Your task to perform on an android device: open app "Fetch Rewards" Image 0: 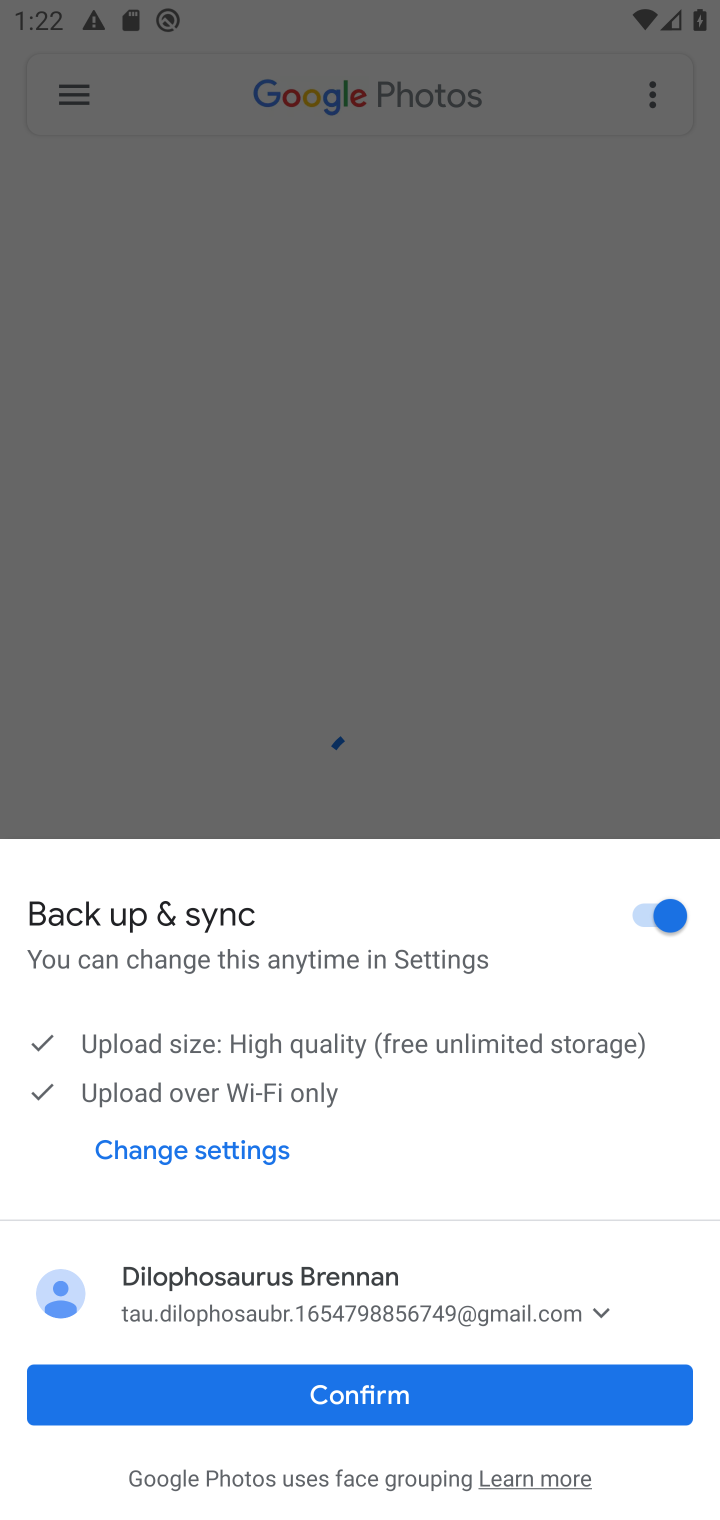
Step 0: press home button
Your task to perform on an android device: open app "Fetch Rewards" Image 1: 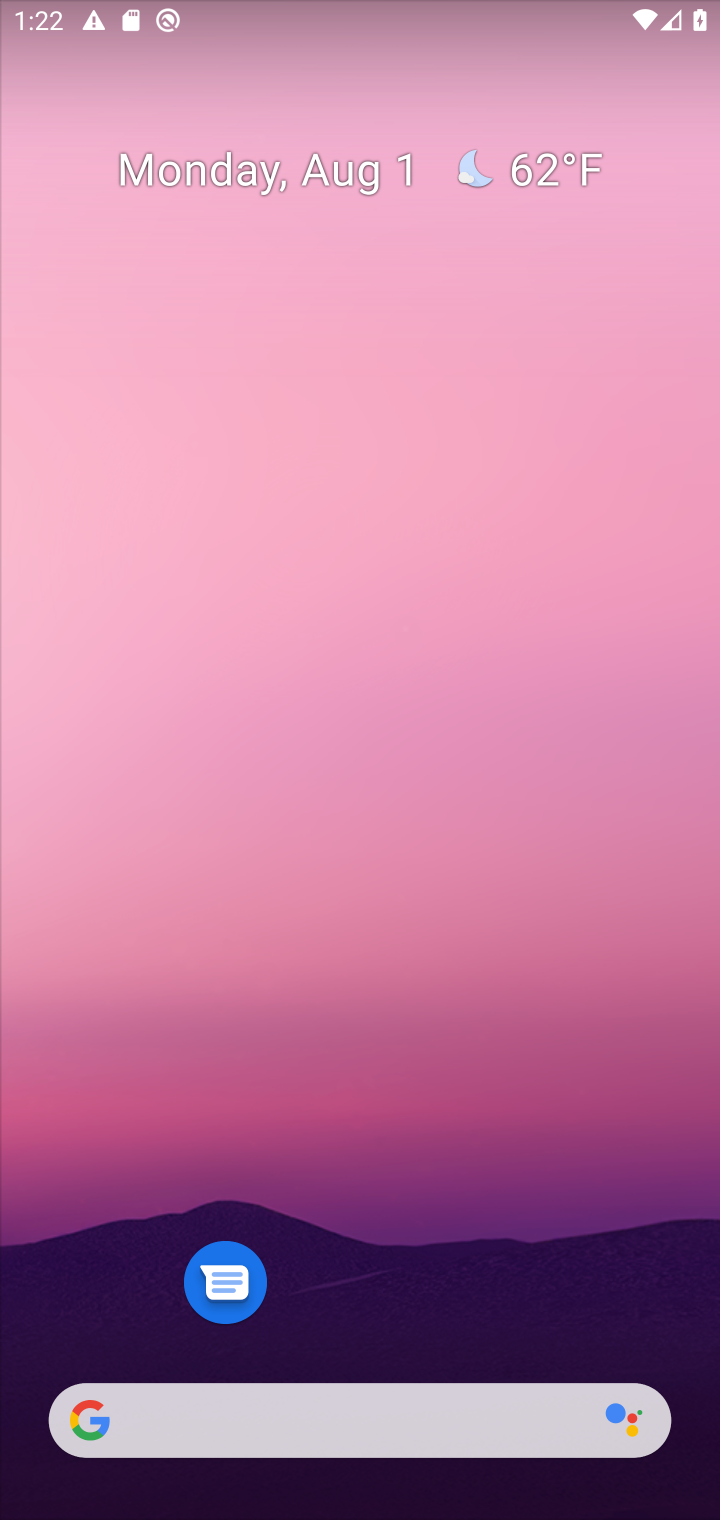
Step 1: drag from (409, 1271) to (340, 432)
Your task to perform on an android device: open app "Fetch Rewards" Image 2: 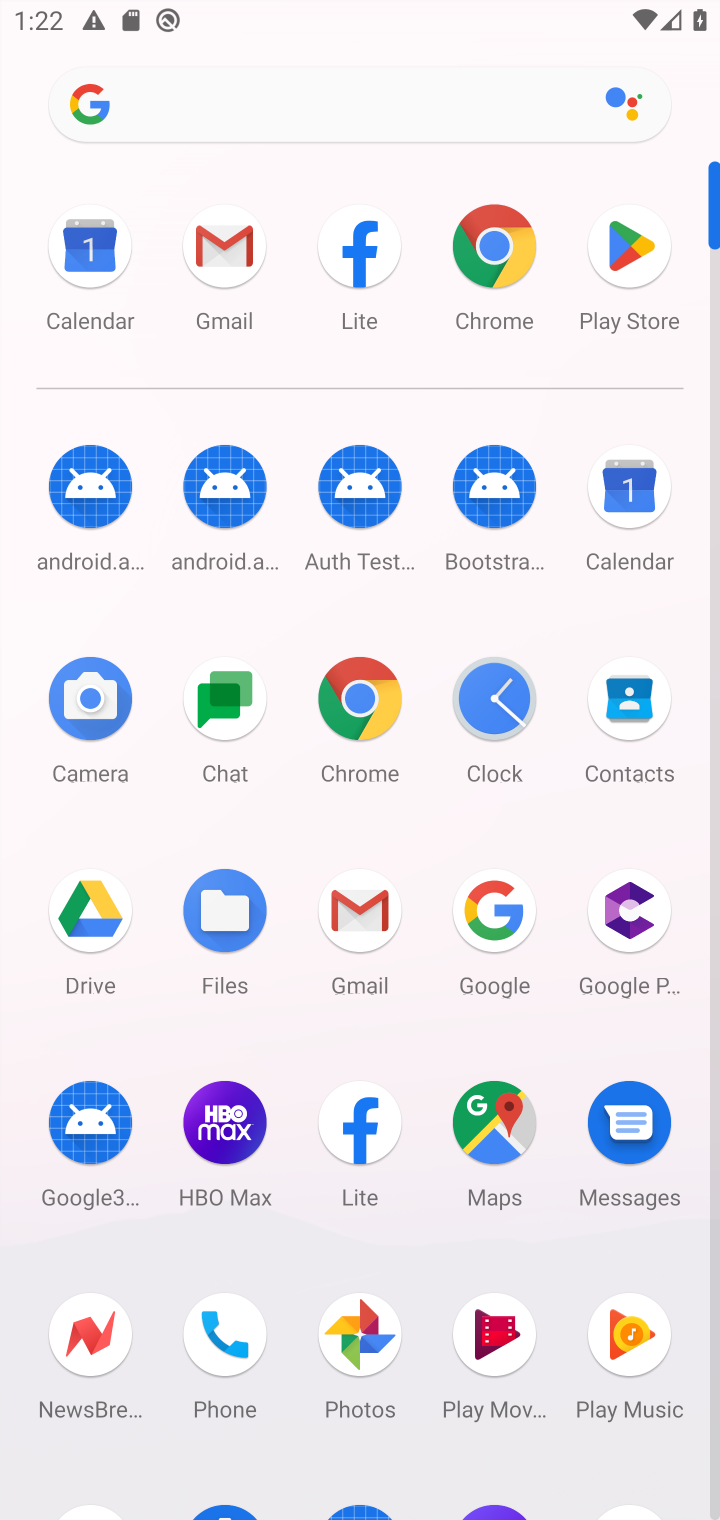
Step 2: click (642, 244)
Your task to perform on an android device: open app "Fetch Rewards" Image 3: 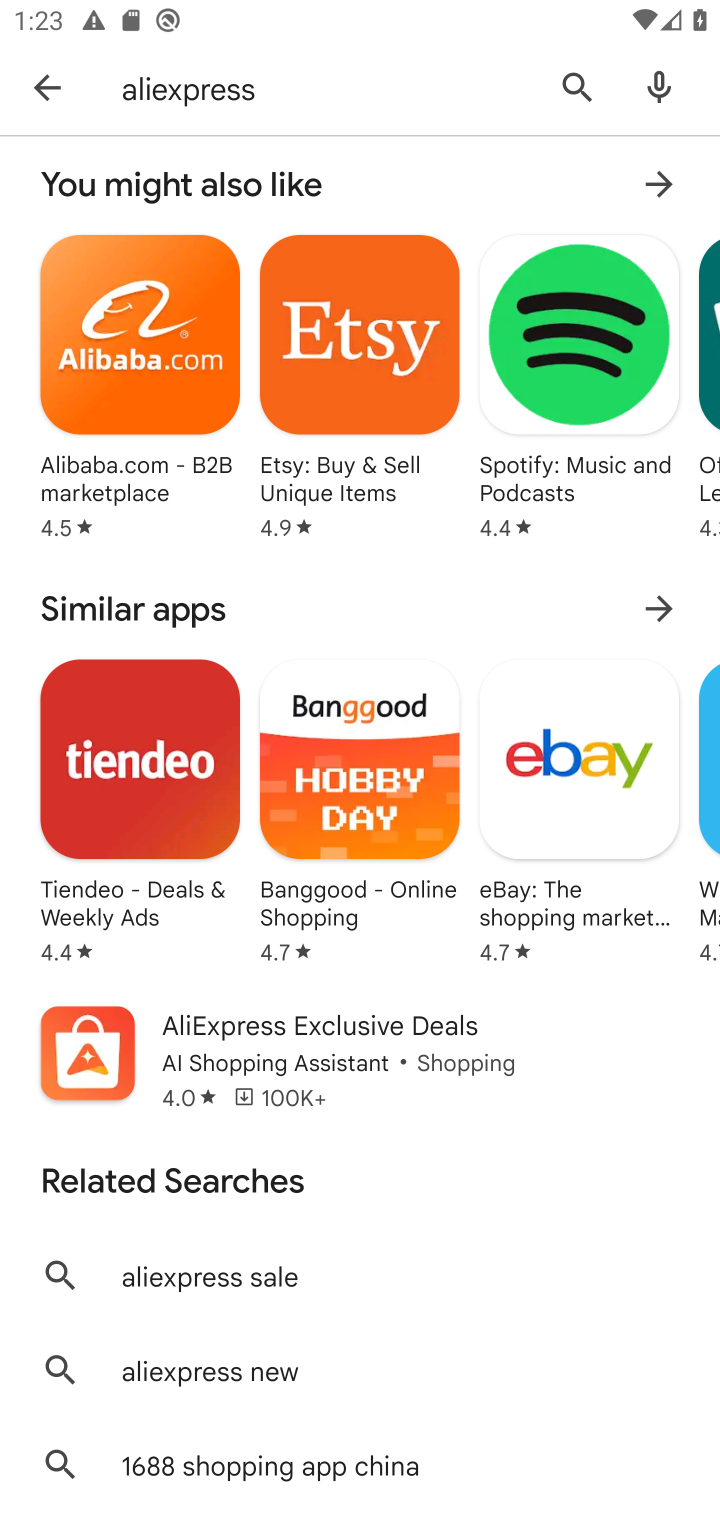
Step 3: click (53, 73)
Your task to perform on an android device: open app "Fetch Rewards" Image 4: 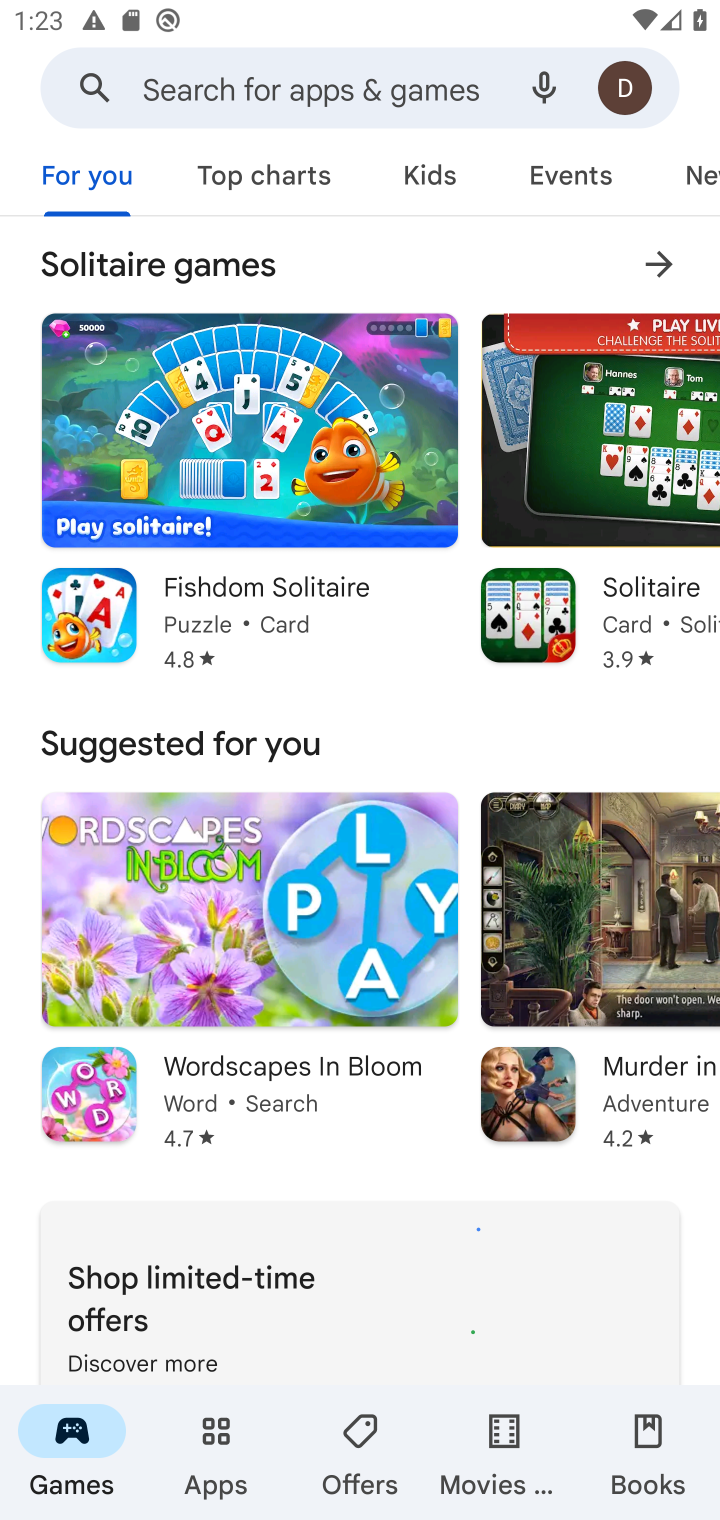
Step 4: click (202, 89)
Your task to perform on an android device: open app "Fetch Rewards" Image 5: 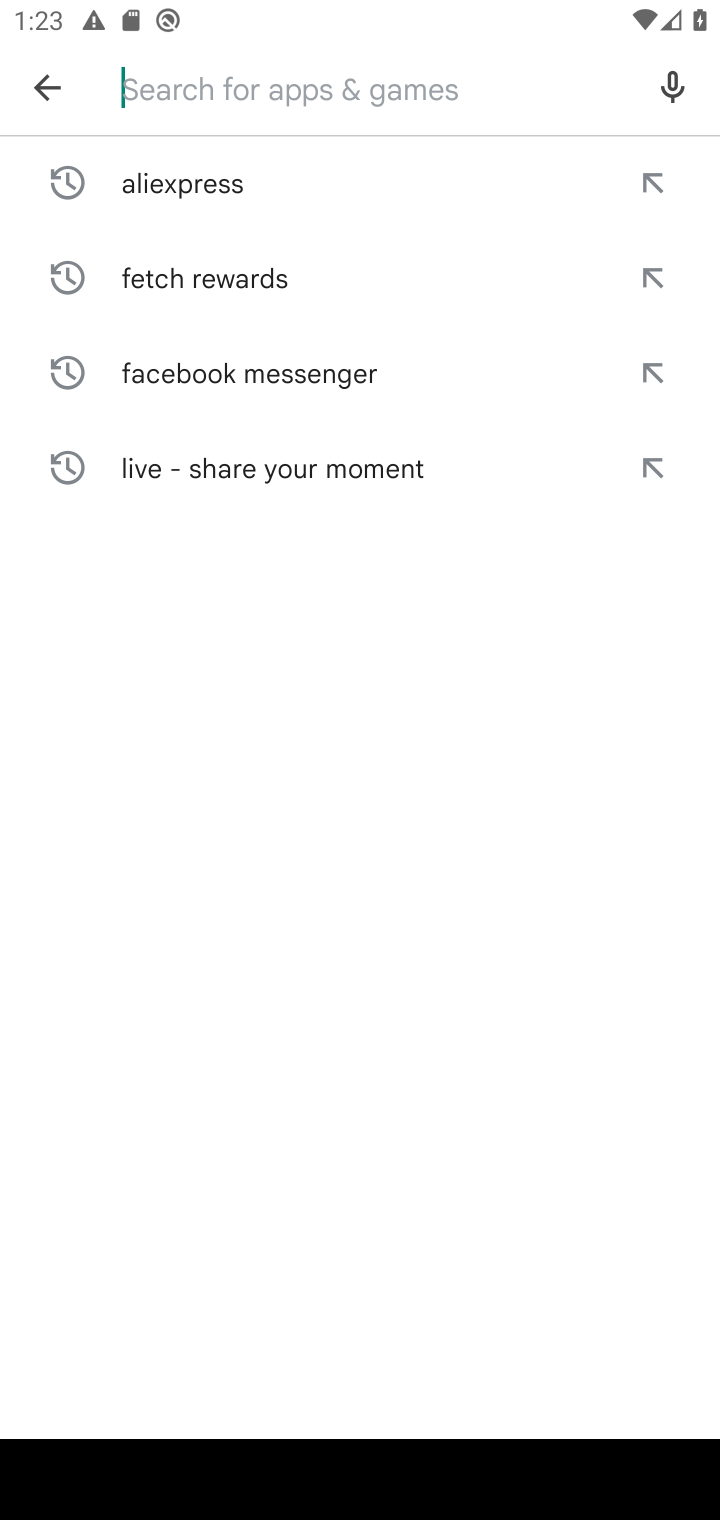
Step 5: type "Fetch Rewards"
Your task to perform on an android device: open app "Fetch Rewards" Image 6: 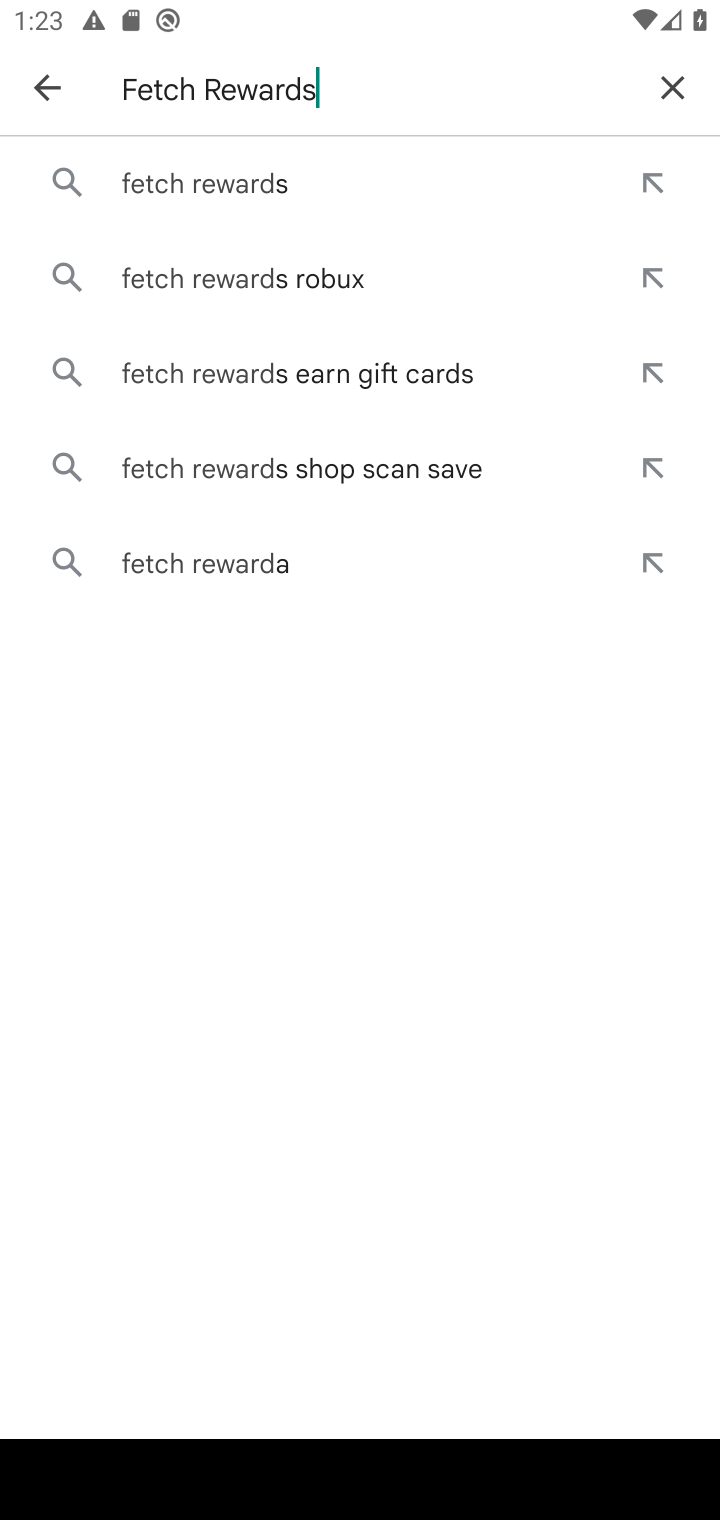
Step 6: type ""
Your task to perform on an android device: open app "Fetch Rewards" Image 7: 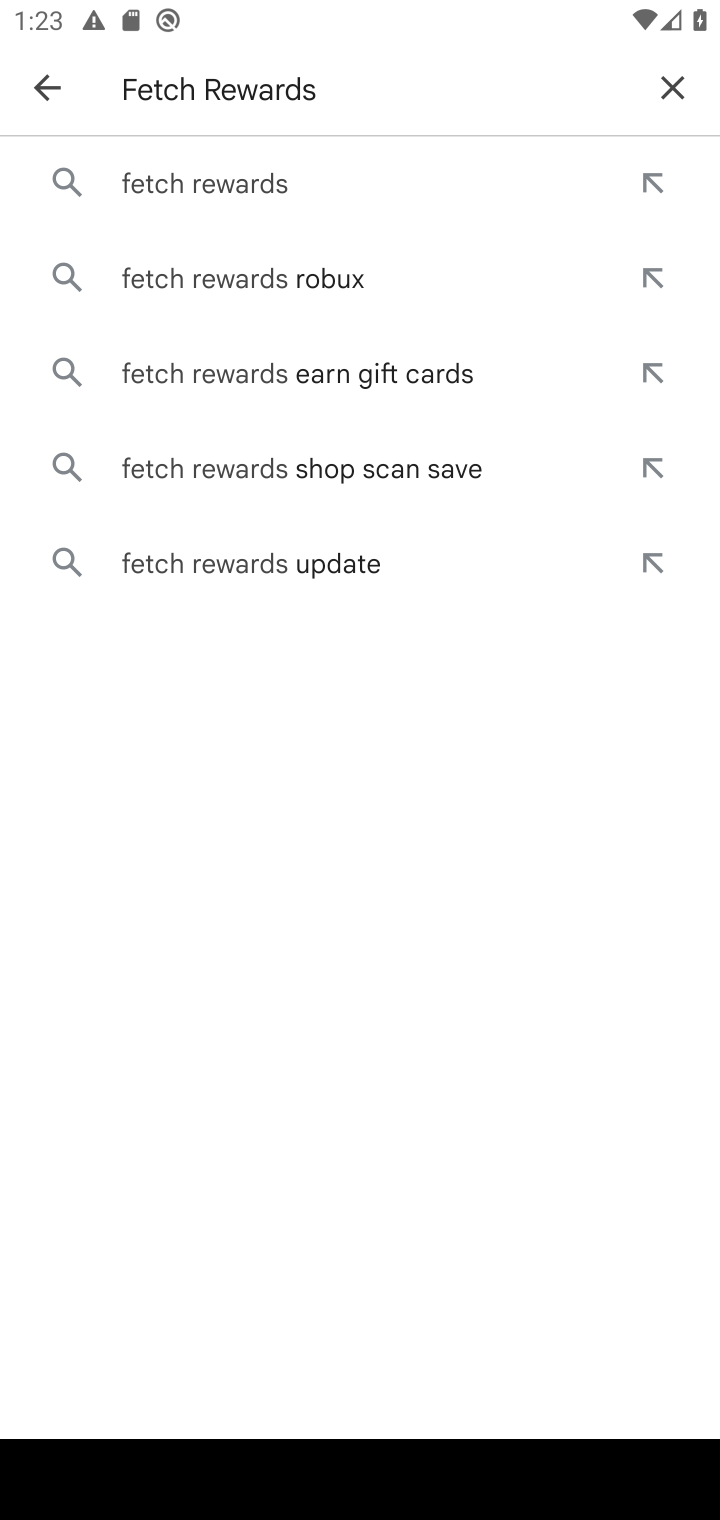
Step 7: click (206, 173)
Your task to perform on an android device: open app "Fetch Rewards" Image 8: 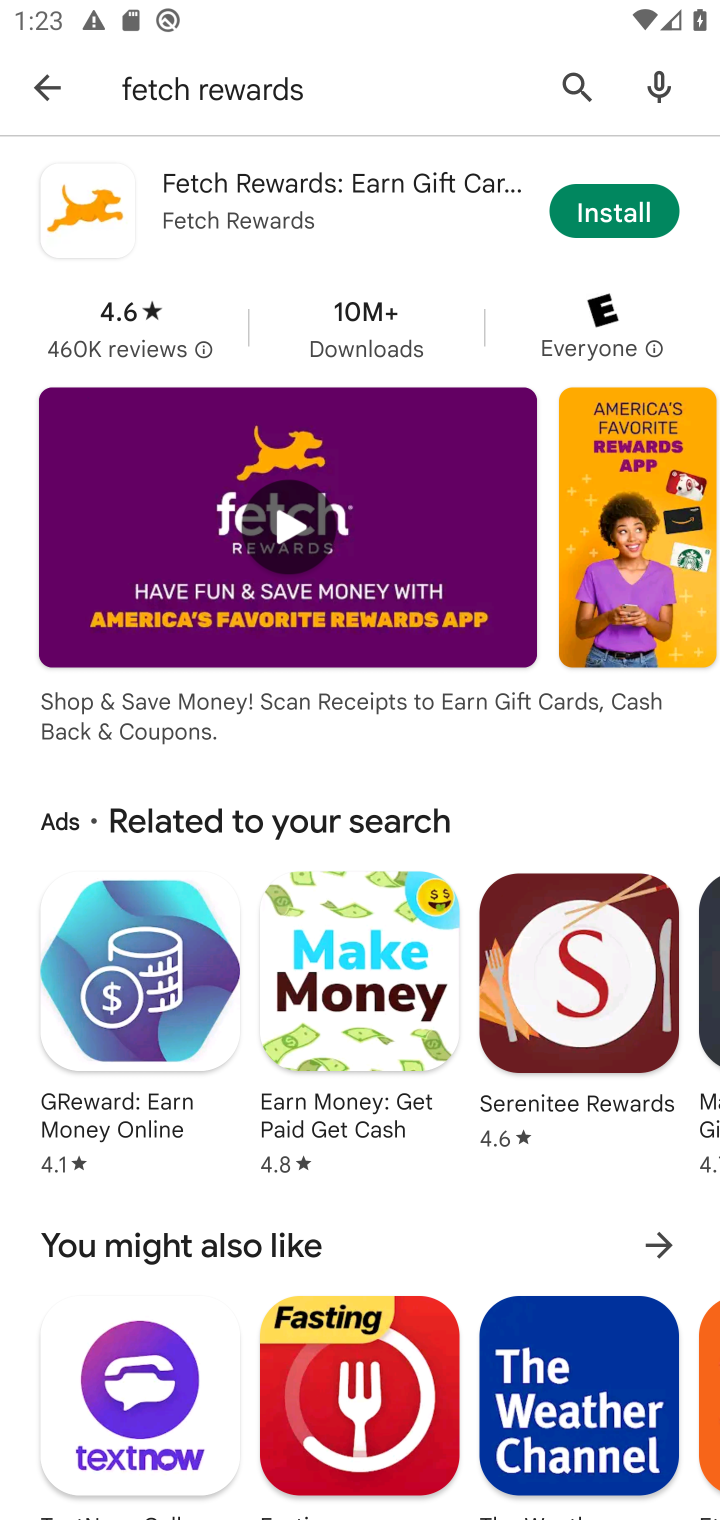
Step 8: task complete